Your task to perform on an android device: Open CNN.com Image 0: 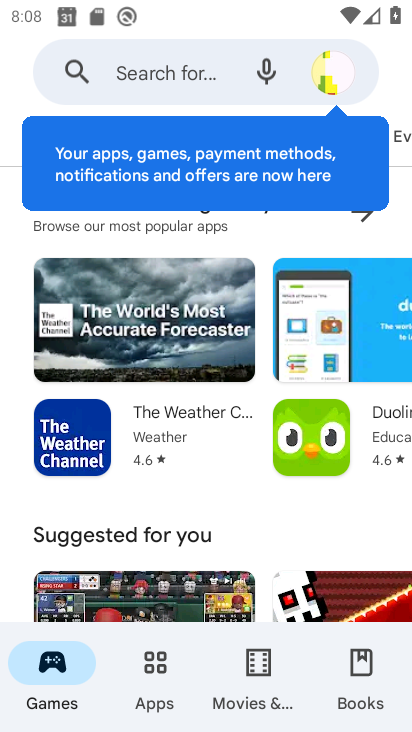
Step 0: press home button
Your task to perform on an android device: Open CNN.com Image 1: 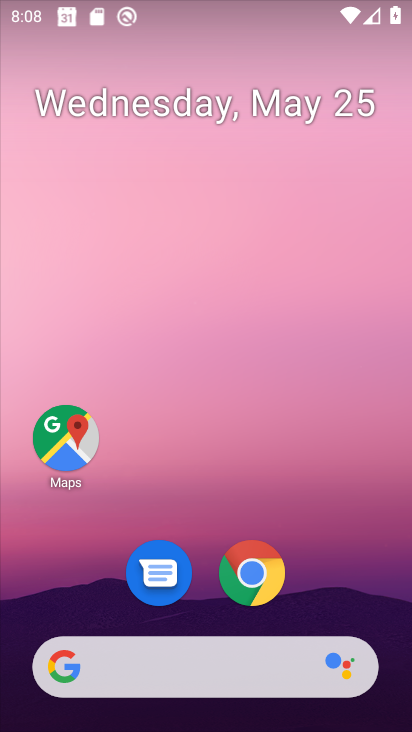
Step 1: click (242, 572)
Your task to perform on an android device: Open CNN.com Image 2: 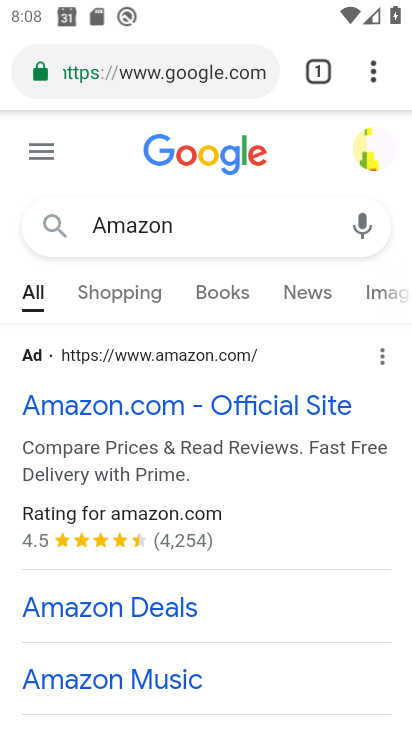
Step 2: click (261, 71)
Your task to perform on an android device: Open CNN.com Image 3: 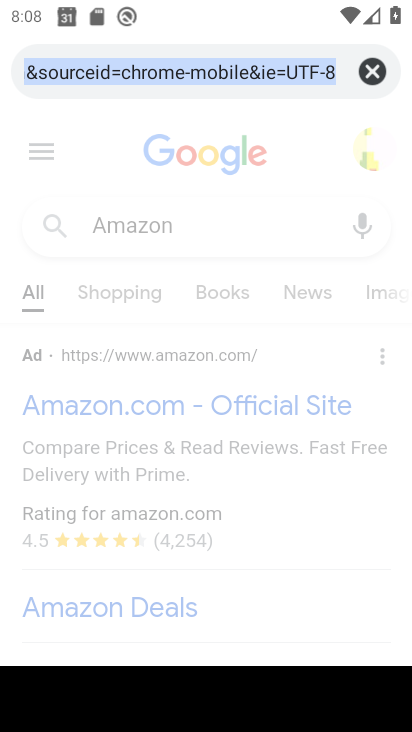
Step 3: click (368, 71)
Your task to perform on an android device: Open CNN.com Image 4: 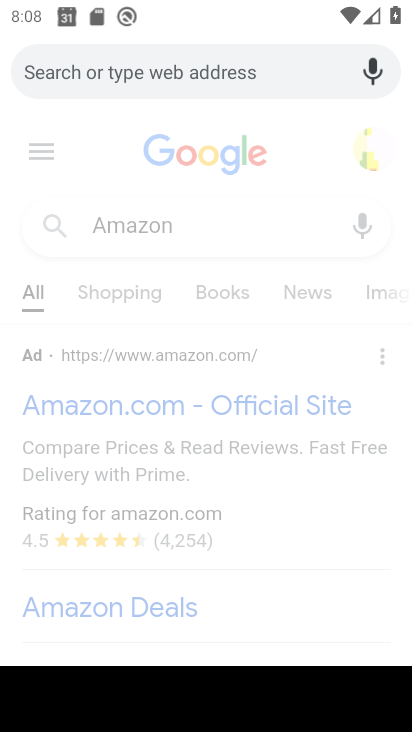
Step 4: type "CNN.com"
Your task to perform on an android device: Open CNN.com Image 5: 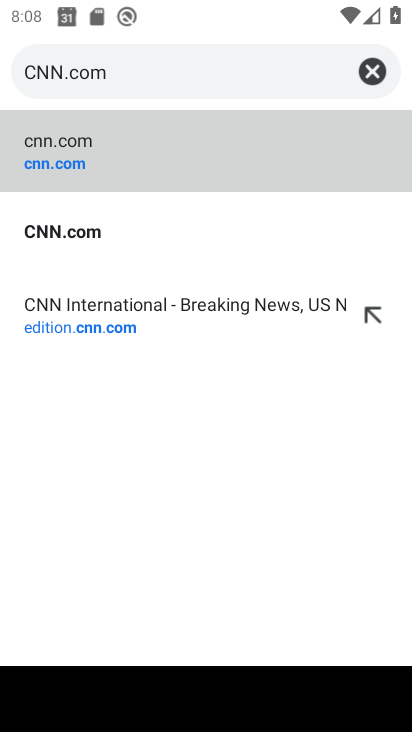
Step 5: click (47, 228)
Your task to perform on an android device: Open CNN.com Image 6: 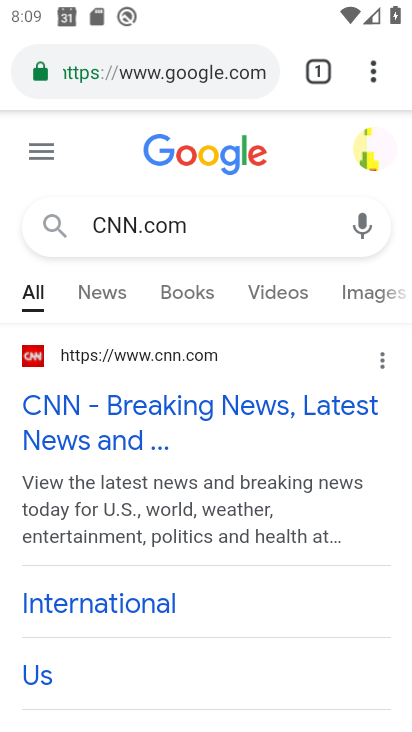
Step 6: task complete